Your task to perform on an android device: Go to display settings Image 0: 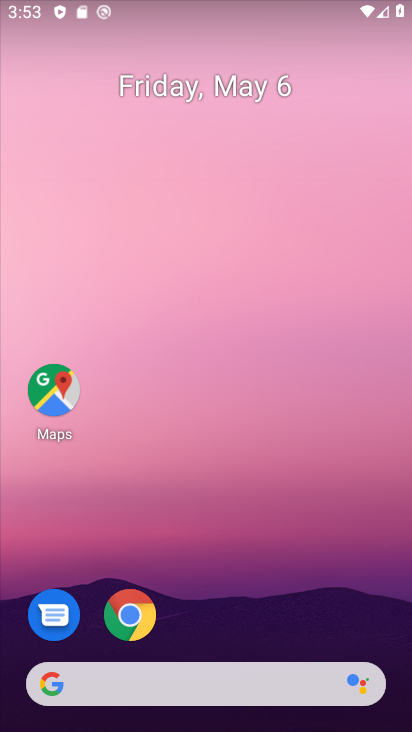
Step 0: drag from (259, 657) to (195, 2)
Your task to perform on an android device: Go to display settings Image 1: 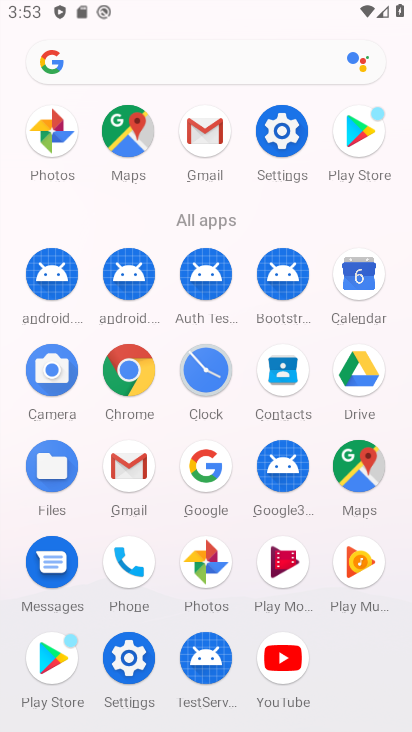
Step 1: click (283, 120)
Your task to perform on an android device: Go to display settings Image 2: 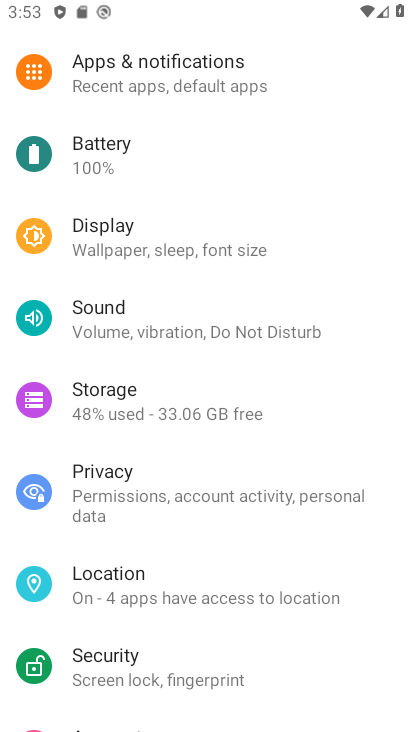
Step 2: click (75, 269)
Your task to perform on an android device: Go to display settings Image 3: 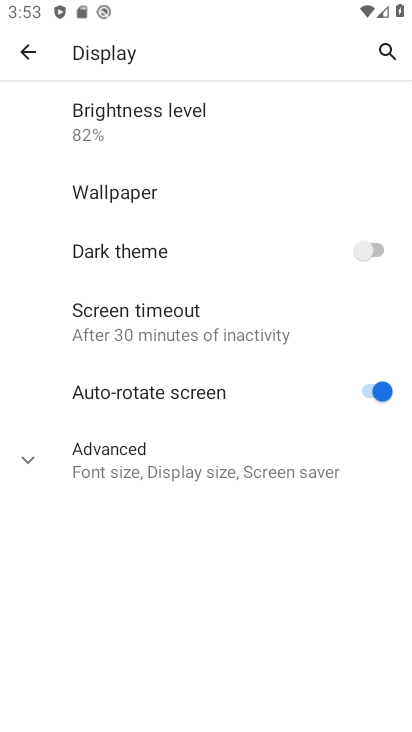
Step 3: click (126, 453)
Your task to perform on an android device: Go to display settings Image 4: 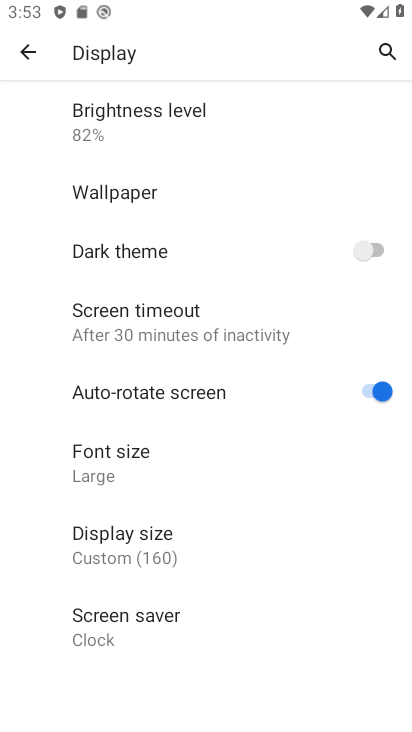
Step 4: task complete